Your task to perform on an android device: Check the weather Image 0: 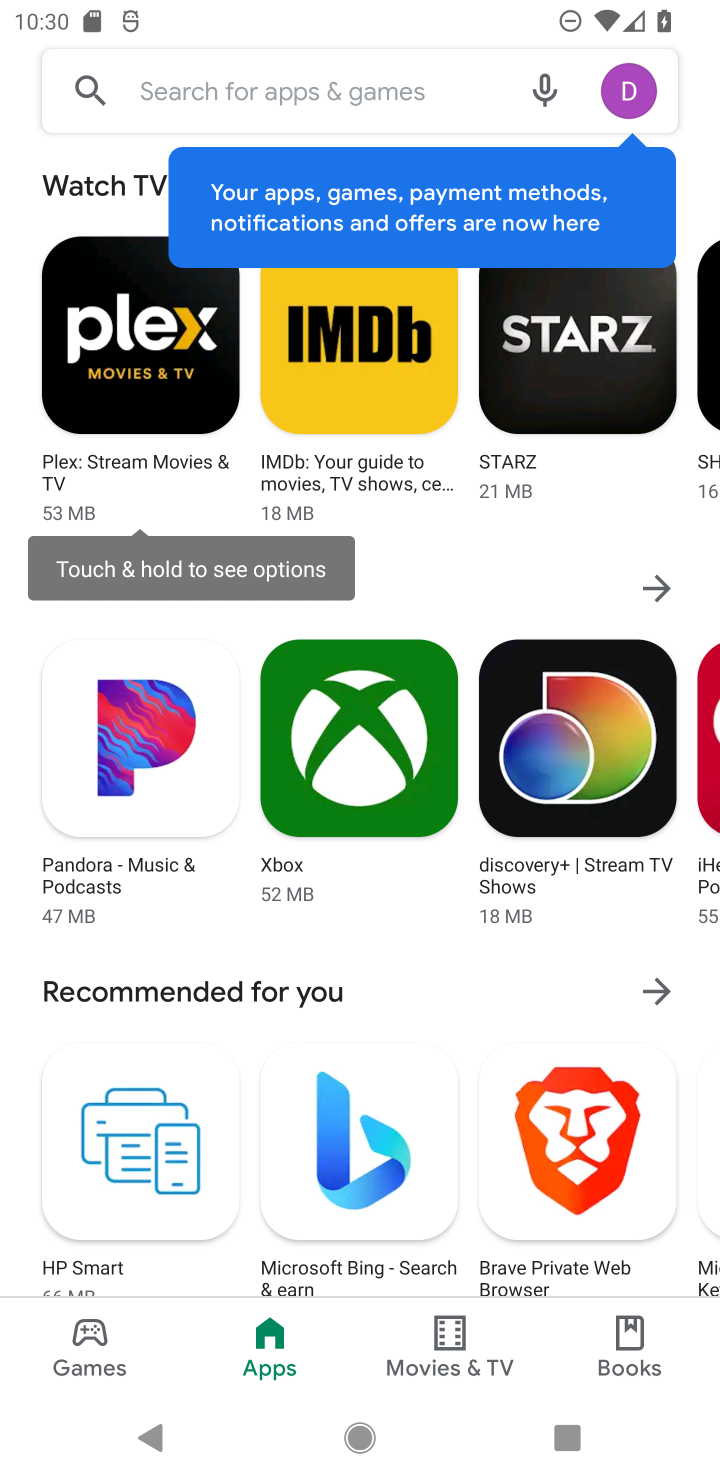
Step 0: press home button
Your task to perform on an android device: Check the weather Image 1: 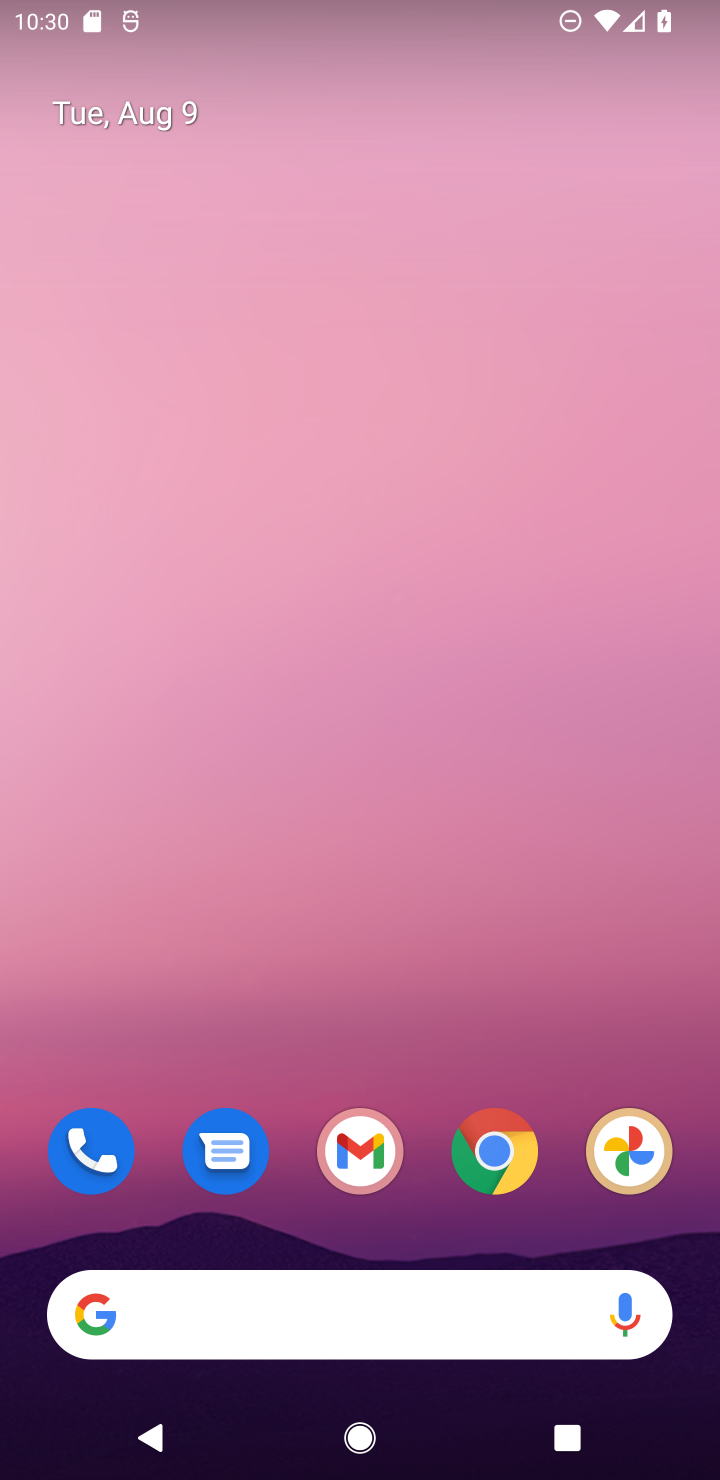
Step 1: click (461, 1300)
Your task to perform on an android device: Check the weather Image 2: 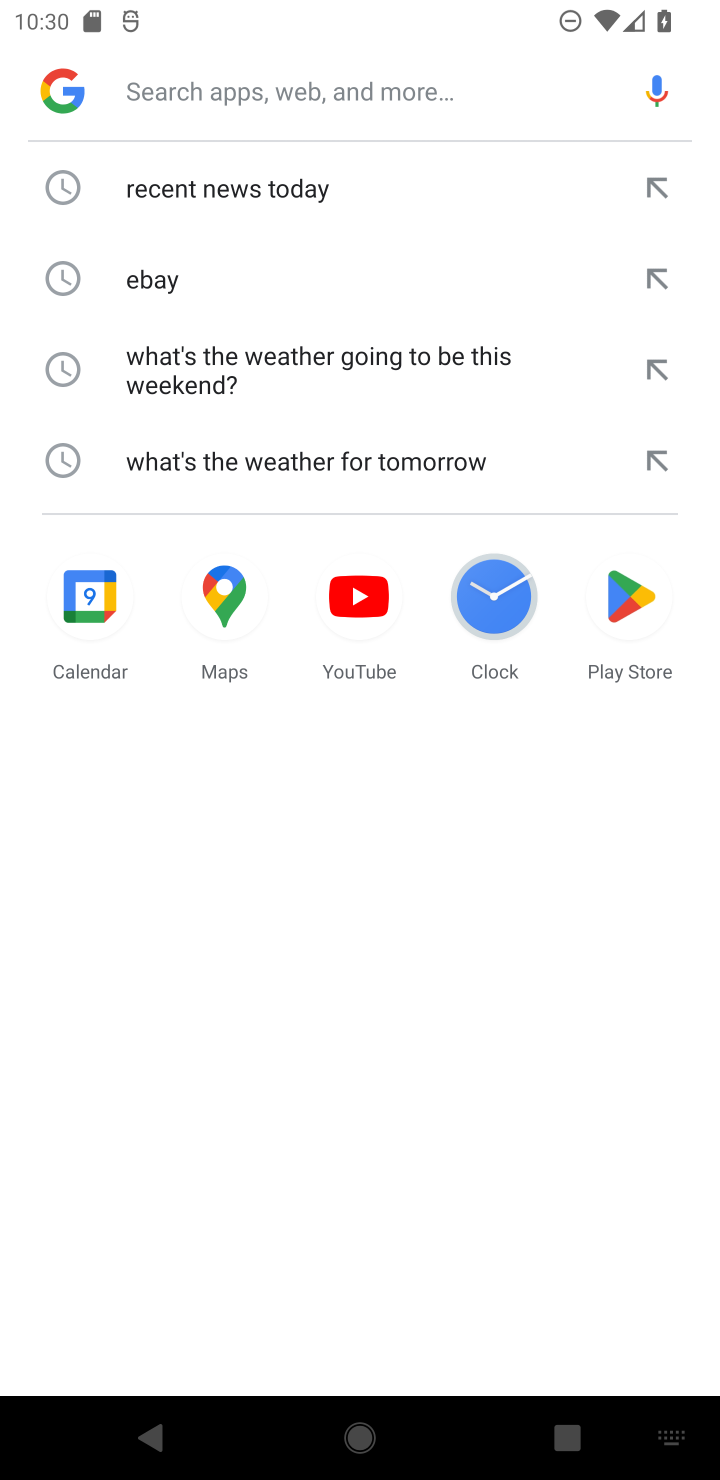
Step 2: type "weather"
Your task to perform on an android device: Check the weather Image 3: 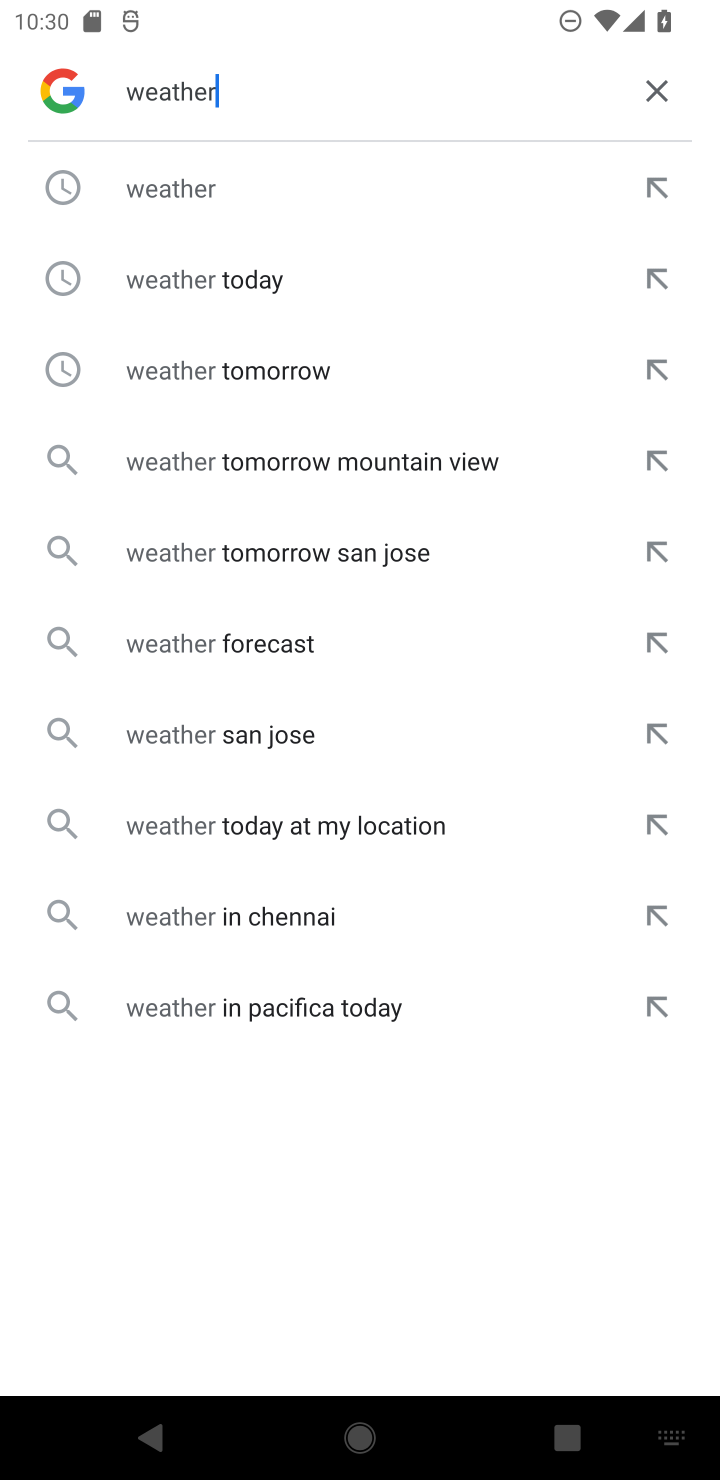
Step 3: click (206, 282)
Your task to perform on an android device: Check the weather Image 4: 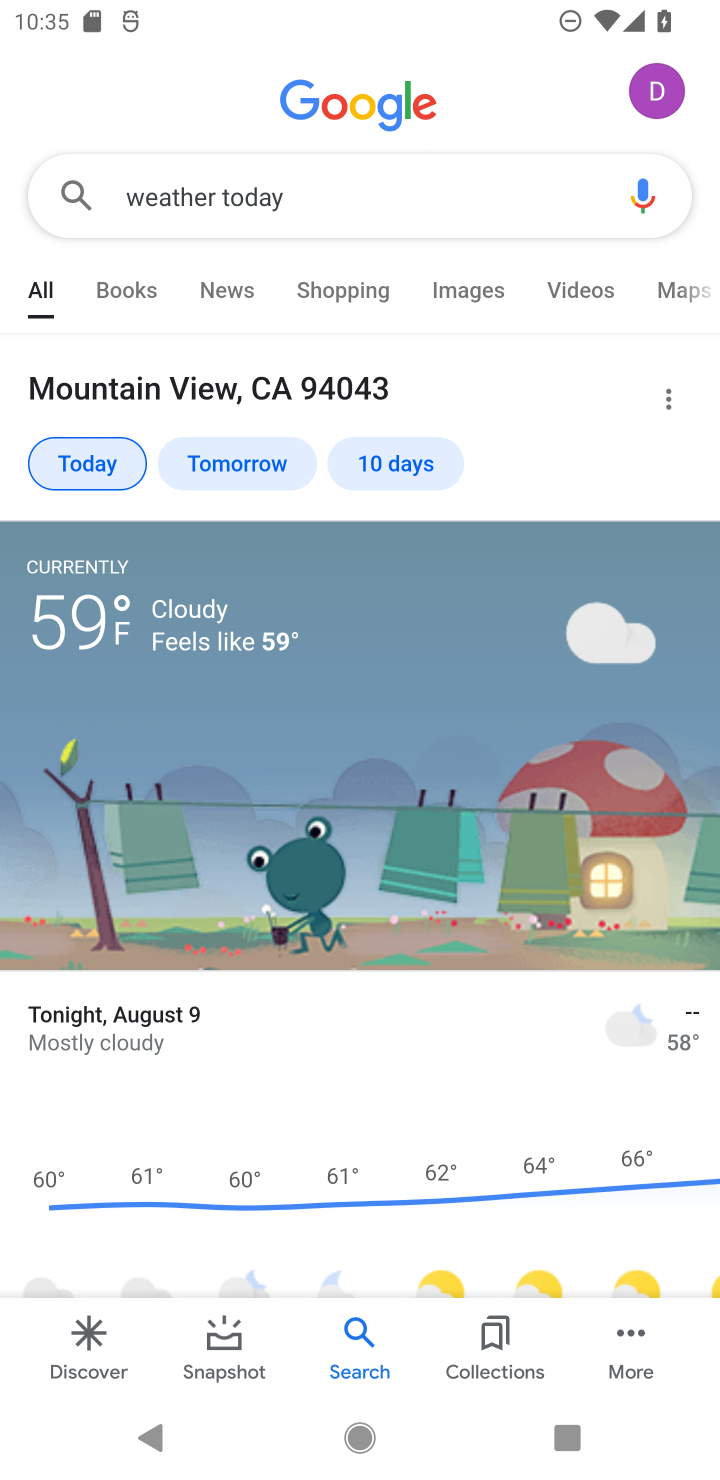
Step 4: task complete